Your task to perform on an android device: Is it going to rain this weekend? Image 0: 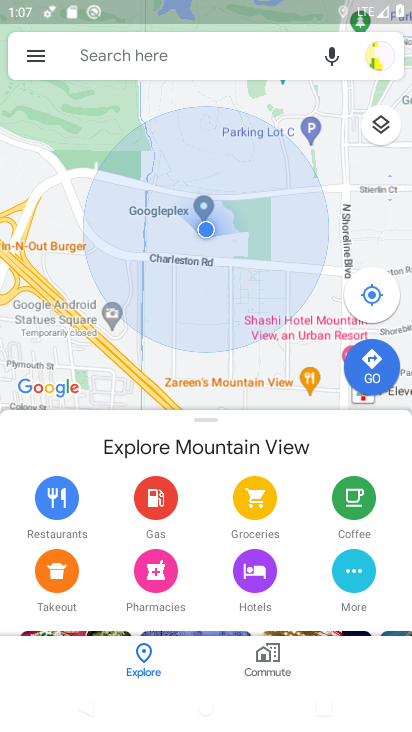
Step 0: press home button
Your task to perform on an android device: Is it going to rain this weekend? Image 1: 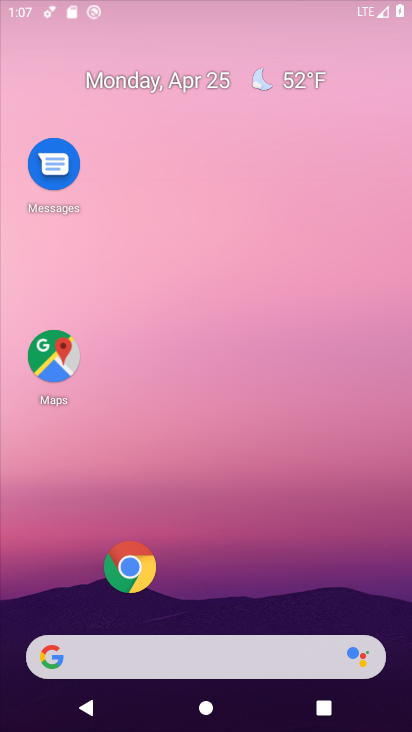
Step 1: drag from (214, 532) to (174, 60)
Your task to perform on an android device: Is it going to rain this weekend? Image 2: 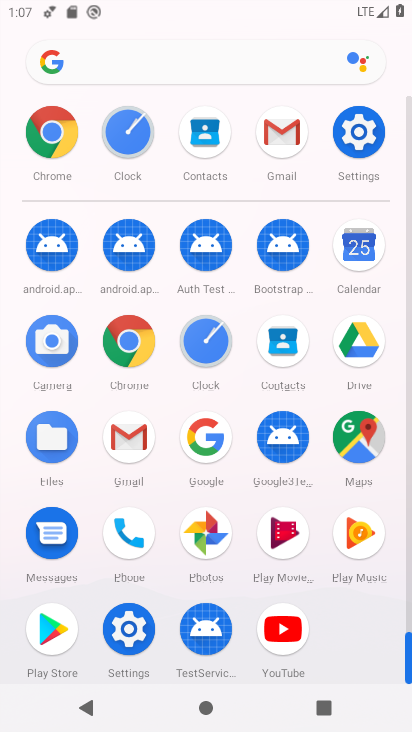
Step 2: click (205, 449)
Your task to perform on an android device: Is it going to rain this weekend? Image 3: 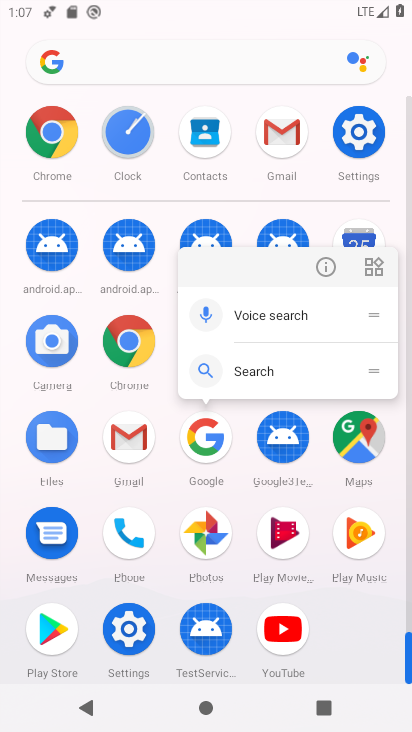
Step 3: click (210, 468)
Your task to perform on an android device: Is it going to rain this weekend? Image 4: 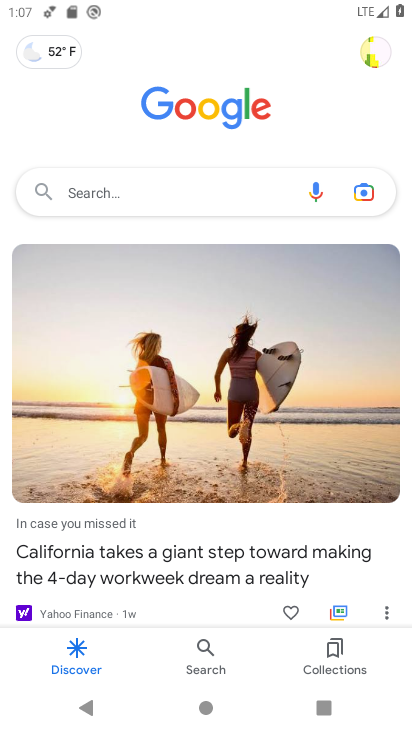
Step 4: click (178, 184)
Your task to perform on an android device: Is it going to rain this weekend? Image 5: 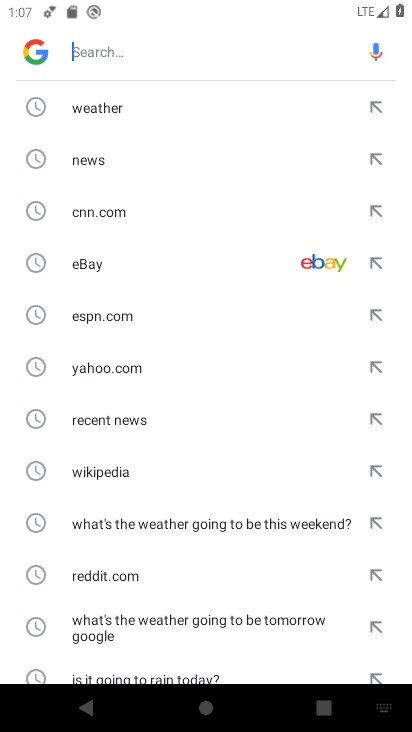
Step 5: click (185, 115)
Your task to perform on an android device: Is it going to rain this weekend? Image 6: 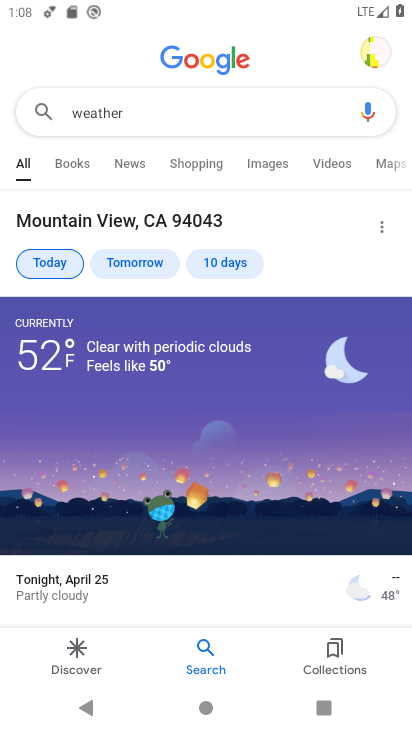
Step 6: drag from (138, 260) to (279, 260)
Your task to perform on an android device: Is it going to rain this weekend? Image 7: 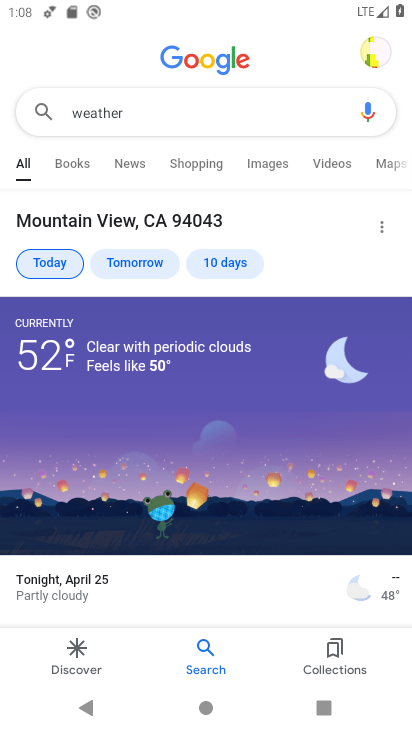
Step 7: click (243, 263)
Your task to perform on an android device: Is it going to rain this weekend? Image 8: 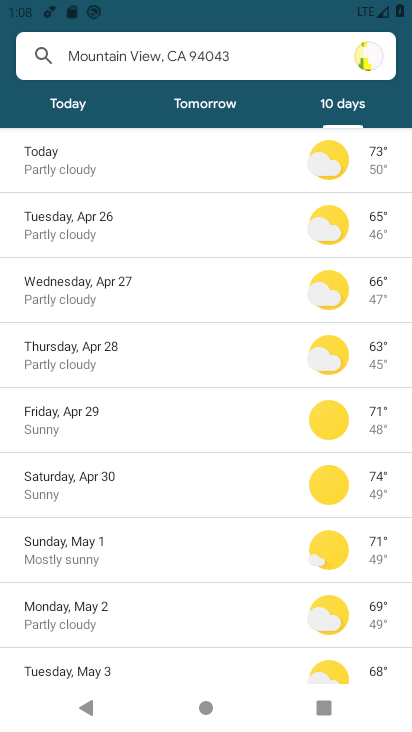
Step 8: task complete